Your task to perform on an android device: Go to Wikipedia Image 0: 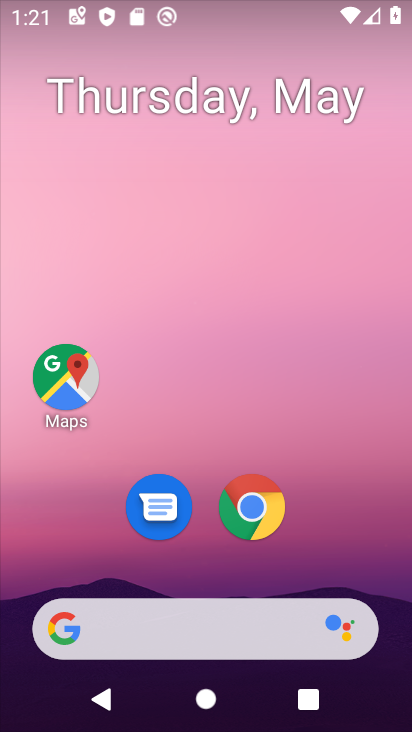
Step 0: drag from (269, 613) to (249, 71)
Your task to perform on an android device: Go to Wikipedia Image 1: 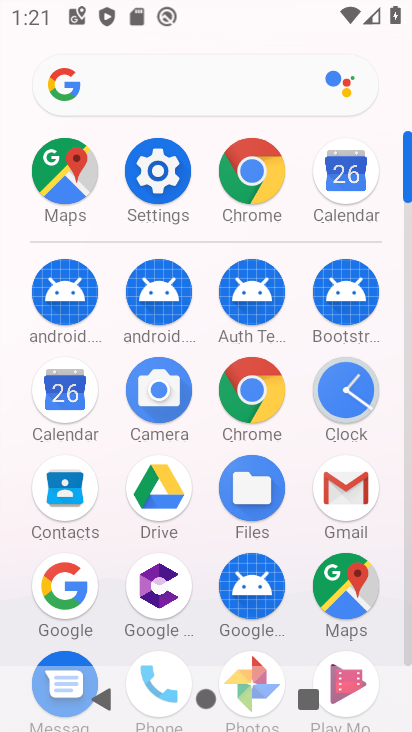
Step 1: click (246, 397)
Your task to perform on an android device: Go to Wikipedia Image 2: 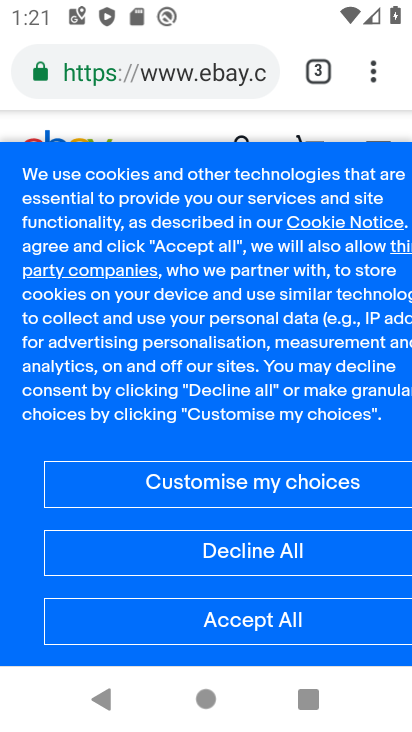
Step 2: drag from (368, 80) to (227, 149)
Your task to perform on an android device: Go to Wikipedia Image 3: 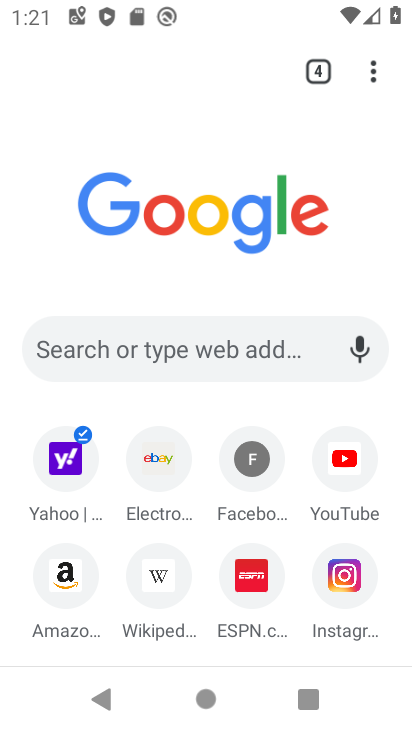
Step 3: click (154, 598)
Your task to perform on an android device: Go to Wikipedia Image 4: 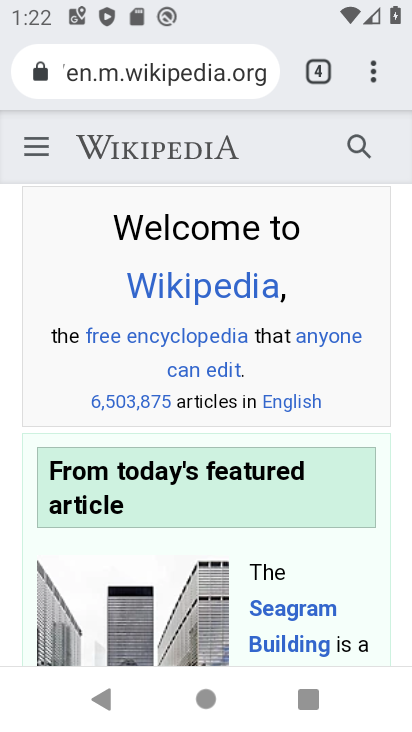
Step 4: task complete